Your task to perform on an android device: Do I have any events today? Image 0: 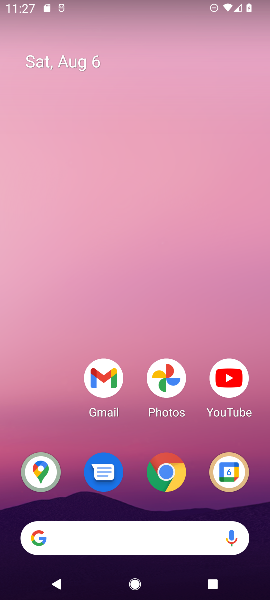
Step 0: drag from (195, 537) to (170, 306)
Your task to perform on an android device: Do I have any events today? Image 1: 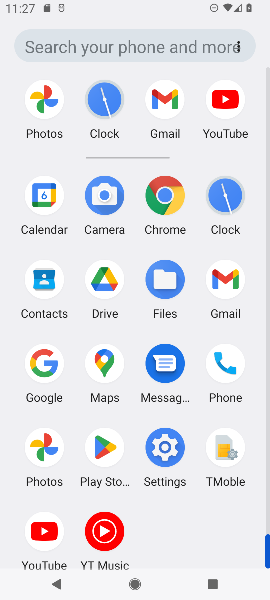
Step 1: click (53, 201)
Your task to perform on an android device: Do I have any events today? Image 2: 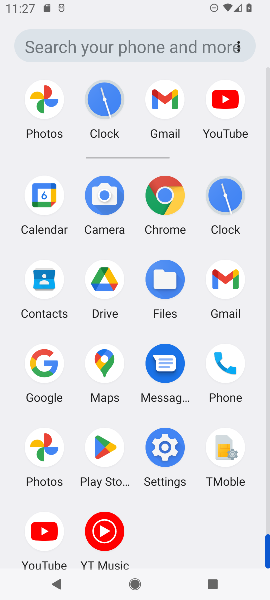
Step 2: click (43, 201)
Your task to perform on an android device: Do I have any events today? Image 3: 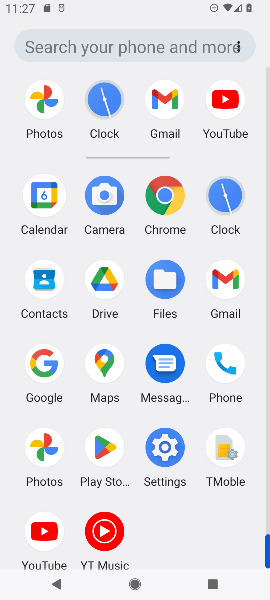
Step 3: click (41, 201)
Your task to perform on an android device: Do I have any events today? Image 4: 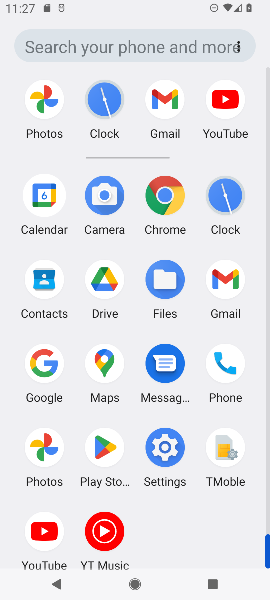
Step 4: click (41, 202)
Your task to perform on an android device: Do I have any events today? Image 5: 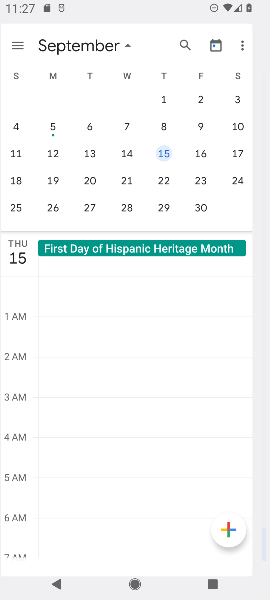
Step 5: click (42, 205)
Your task to perform on an android device: Do I have any events today? Image 6: 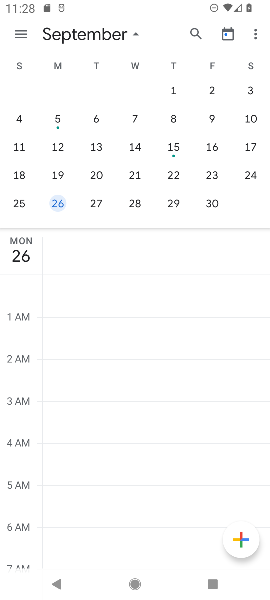
Step 6: drag from (82, 144) to (260, 228)
Your task to perform on an android device: Do I have any events today? Image 7: 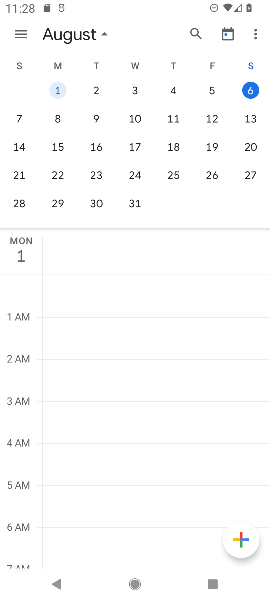
Step 7: click (248, 89)
Your task to perform on an android device: Do I have any events today? Image 8: 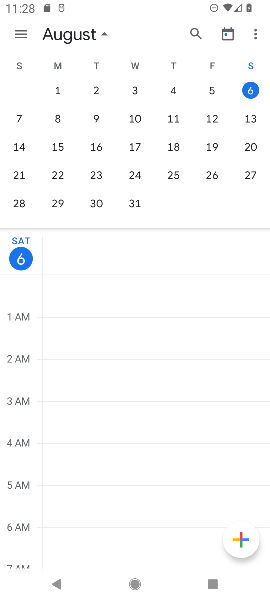
Step 8: task complete